Your task to perform on an android device: Go to ESPN.com Image 0: 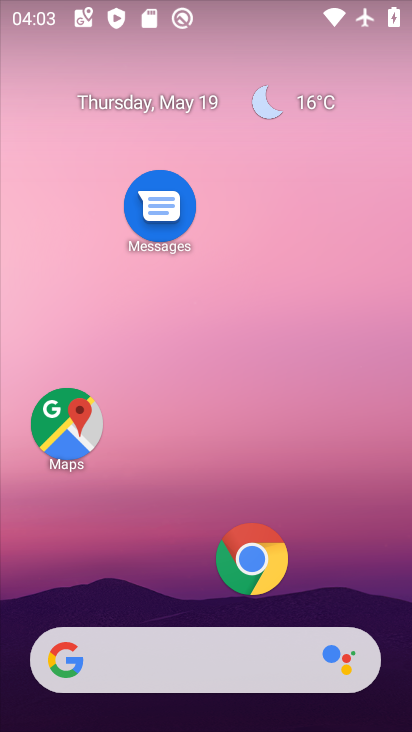
Step 0: click (257, 578)
Your task to perform on an android device: Go to ESPN.com Image 1: 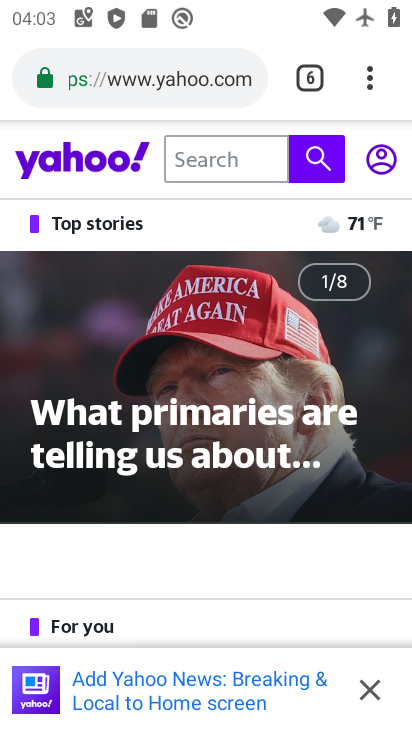
Step 1: click (294, 84)
Your task to perform on an android device: Go to ESPN.com Image 2: 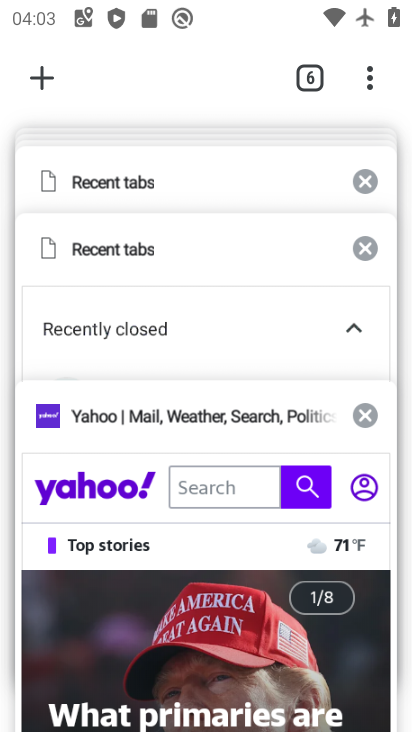
Step 2: click (43, 84)
Your task to perform on an android device: Go to ESPN.com Image 3: 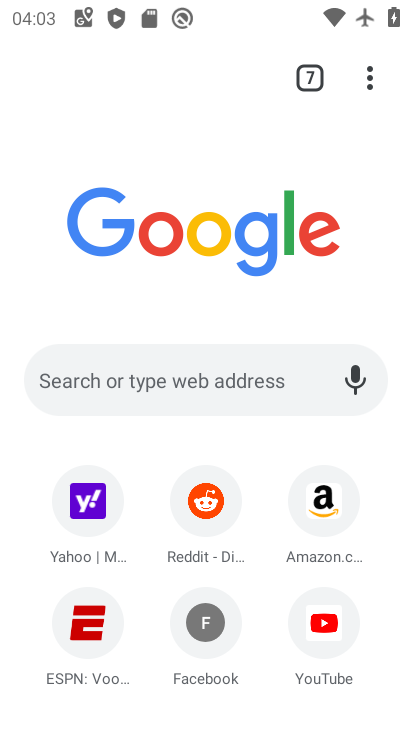
Step 3: click (91, 629)
Your task to perform on an android device: Go to ESPN.com Image 4: 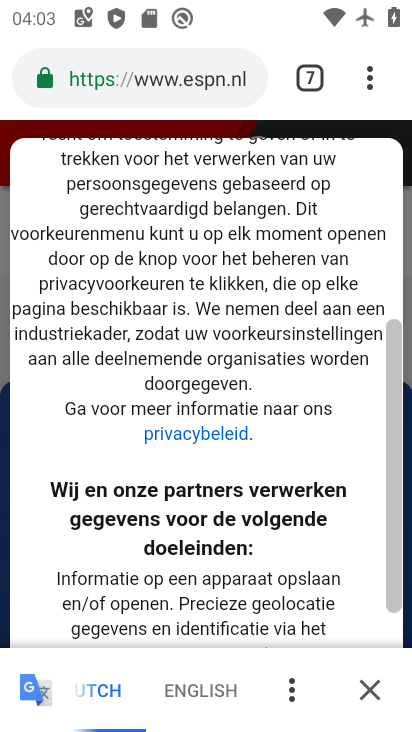
Step 4: task complete